Your task to perform on an android device: Search for pizza restaurants on Maps Image 0: 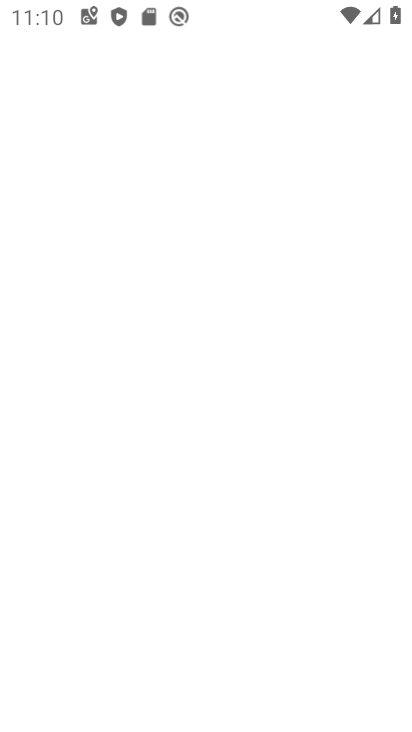
Step 0: click (60, 641)
Your task to perform on an android device: Search for pizza restaurants on Maps Image 1: 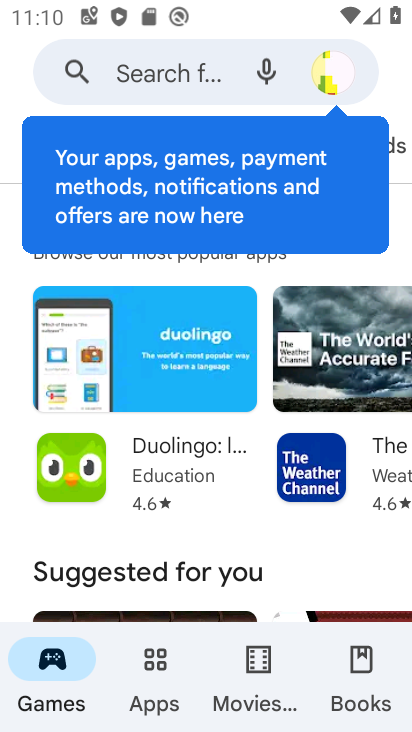
Step 1: press home button
Your task to perform on an android device: Search for pizza restaurants on Maps Image 2: 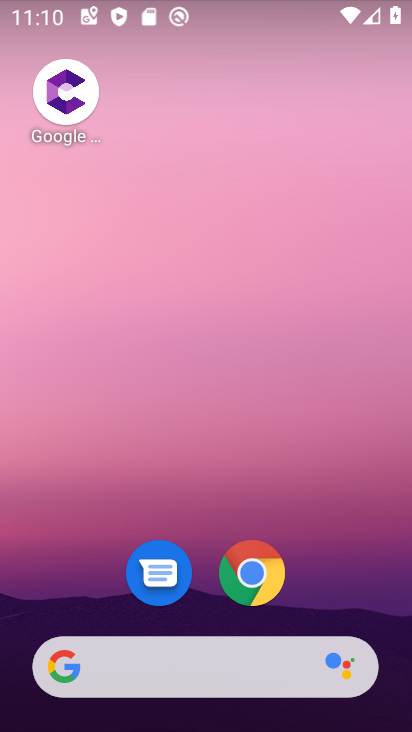
Step 2: drag from (79, 627) to (245, 161)
Your task to perform on an android device: Search for pizza restaurants on Maps Image 3: 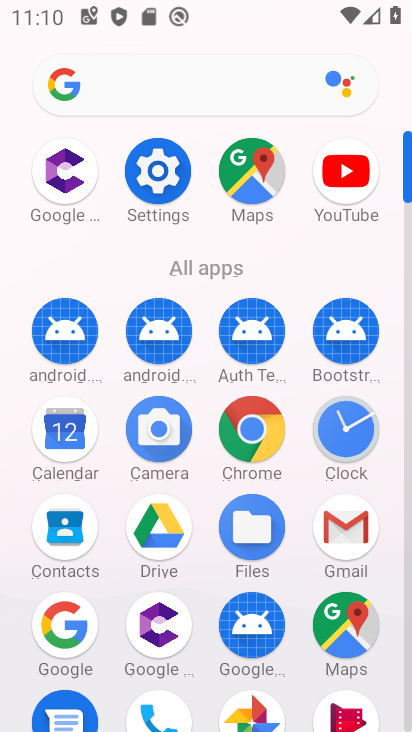
Step 3: click (337, 611)
Your task to perform on an android device: Search for pizza restaurants on Maps Image 4: 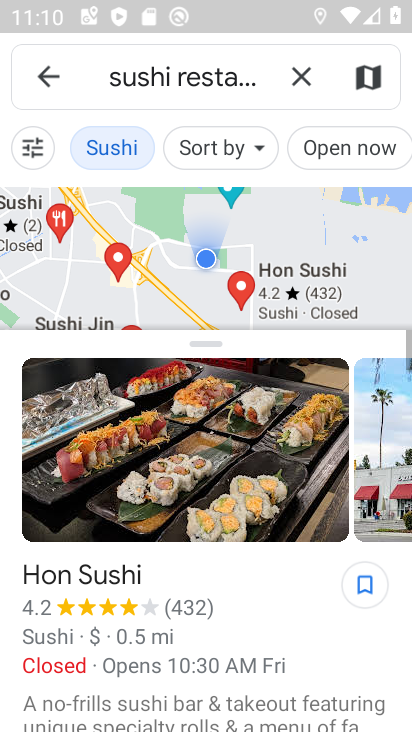
Step 4: click (319, 77)
Your task to perform on an android device: Search for pizza restaurants on Maps Image 5: 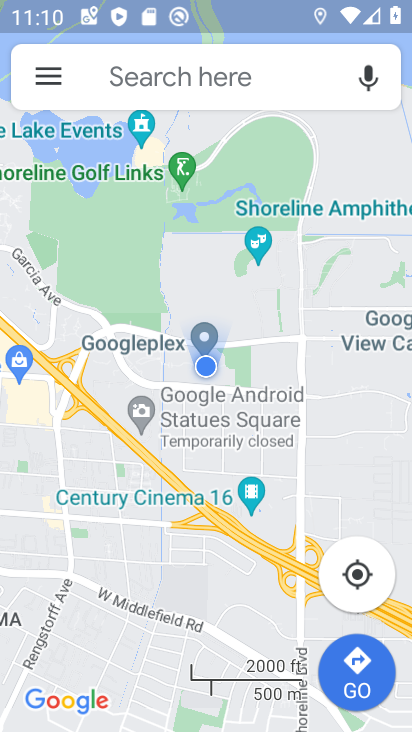
Step 5: click (146, 93)
Your task to perform on an android device: Search for pizza restaurants on Maps Image 6: 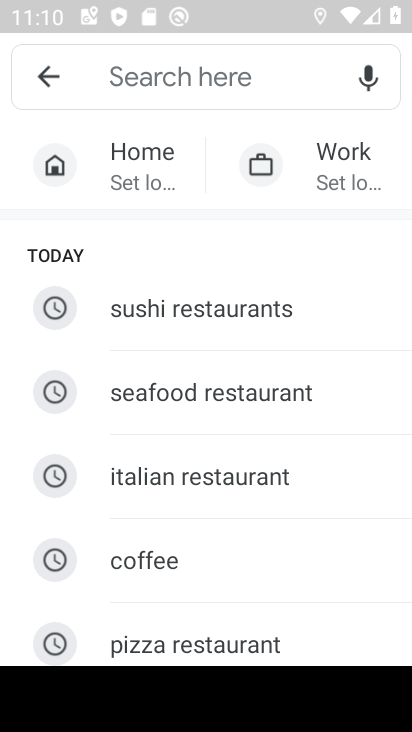
Step 6: type "Pizza restaurants"
Your task to perform on an android device: Search for pizza restaurants on Maps Image 7: 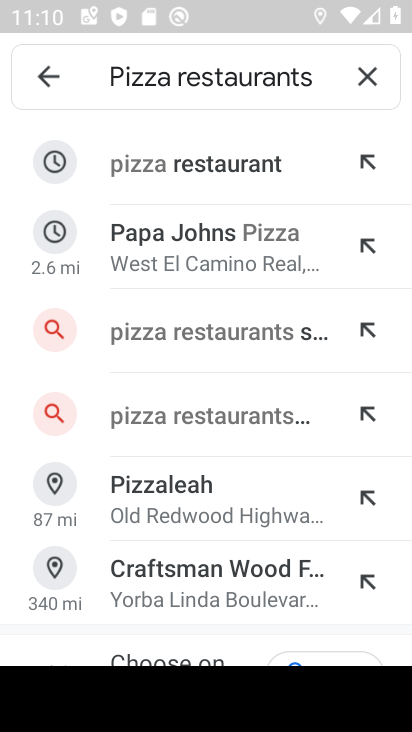
Step 7: click (219, 156)
Your task to perform on an android device: Search for pizza restaurants on Maps Image 8: 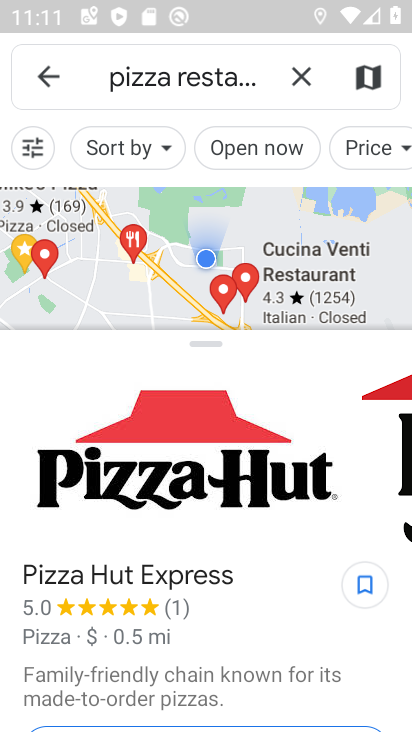
Step 8: task complete